Your task to perform on an android device: Open calendar and show me the first week of next month Image 0: 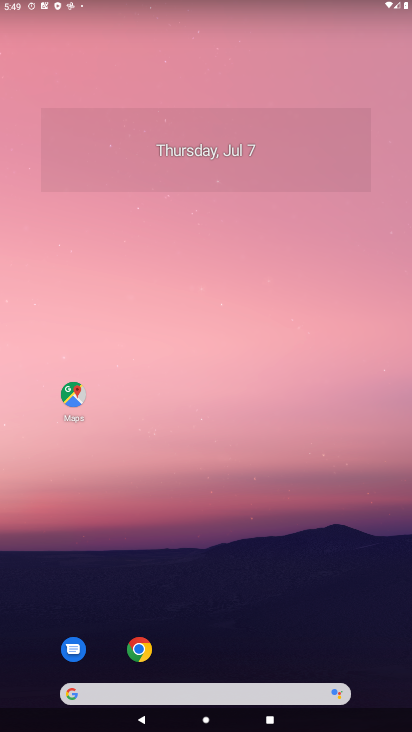
Step 0: drag from (355, 645) to (156, 107)
Your task to perform on an android device: Open calendar and show me the first week of next month Image 1: 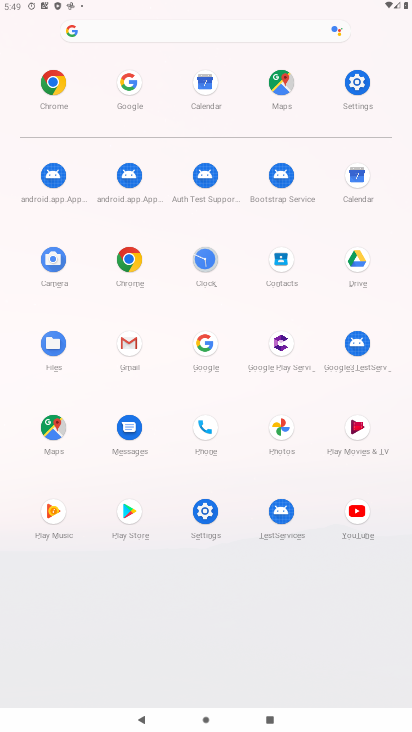
Step 1: click (361, 188)
Your task to perform on an android device: Open calendar and show me the first week of next month Image 2: 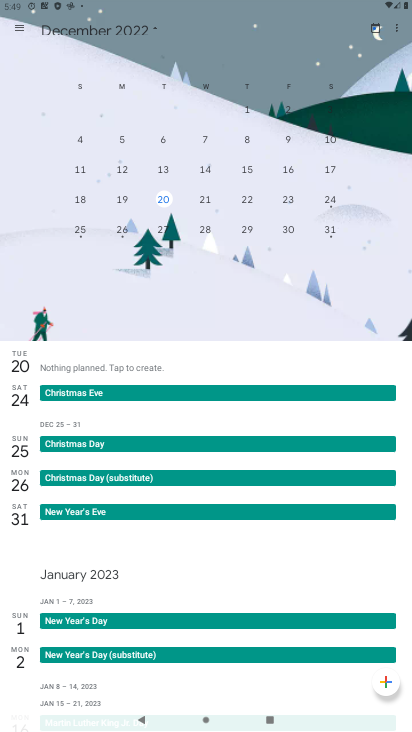
Step 2: drag from (284, 188) to (8, 168)
Your task to perform on an android device: Open calendar and show me the first week of next month Image 3: 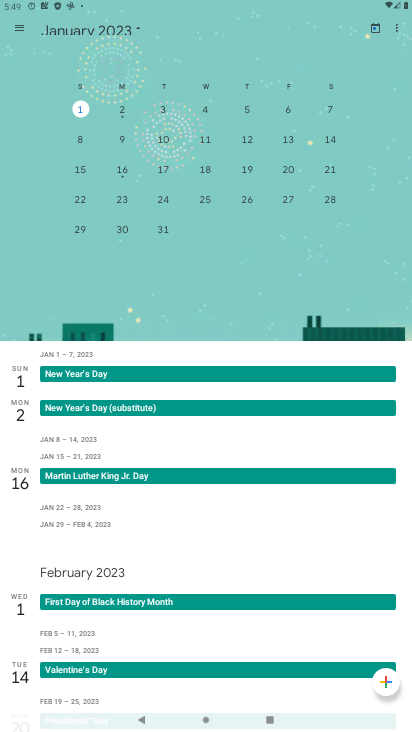
Step 3: click (123, 109)
Your task to perform on an android device: Open calendar and show me the first week of next month Image 4: 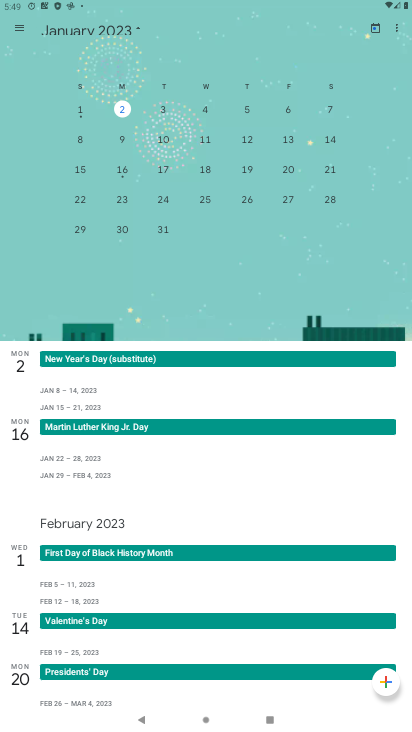
Step 4: task complete